Your task to perform on an android device: change timer sound Image 0: 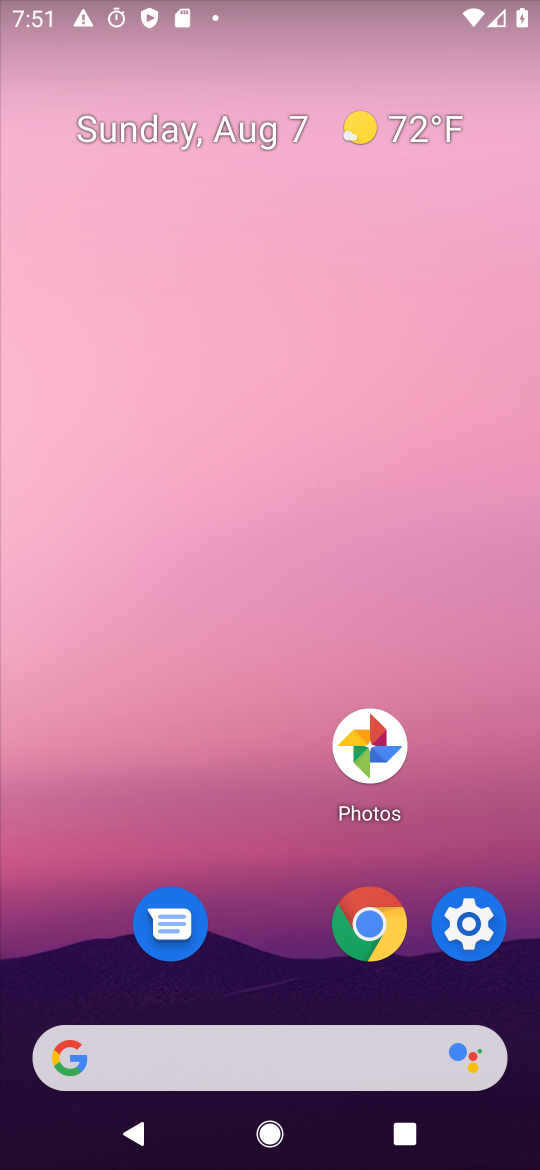
Step 0: drag from (342, 1079) to (269, 487)
Your task to perform on an android device: change timer sound Image 1: 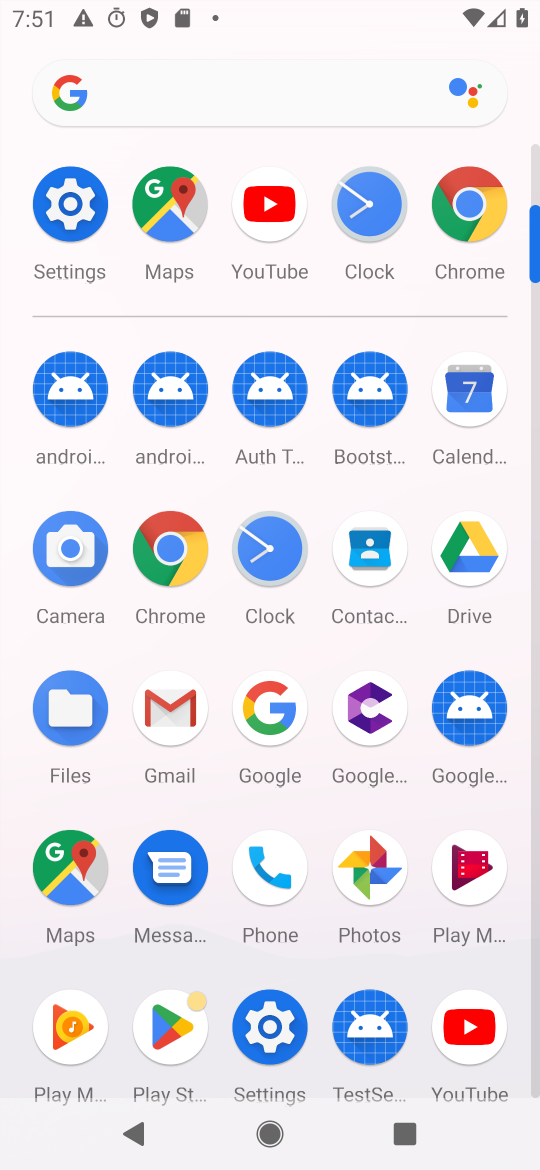
Step 1: click (270, 550)
Your task to perform on an android device: change timer sound Image 2: 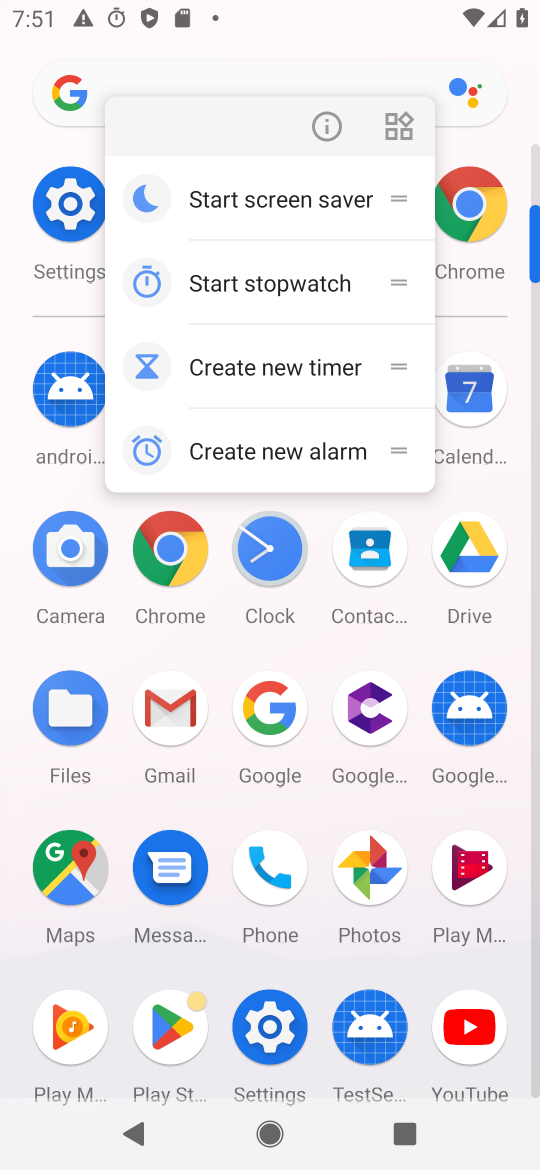
Step 2: click (285, 554)
Your task to perform on an android device: change timer sound Image 3: 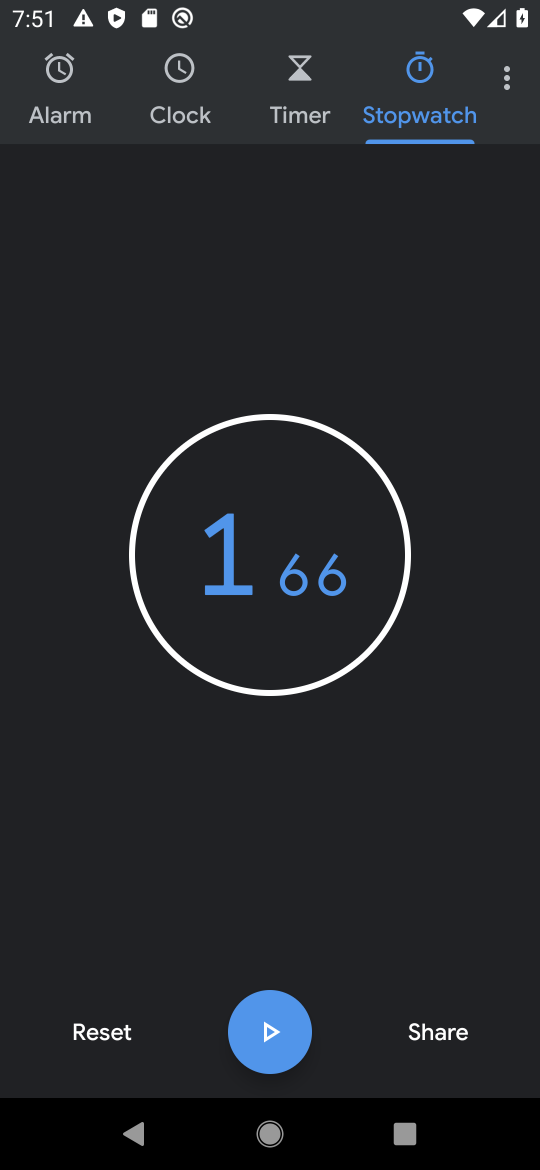
Step 3: click (508, 91)
Your task to perform on an android device: change timer sound Image 4: 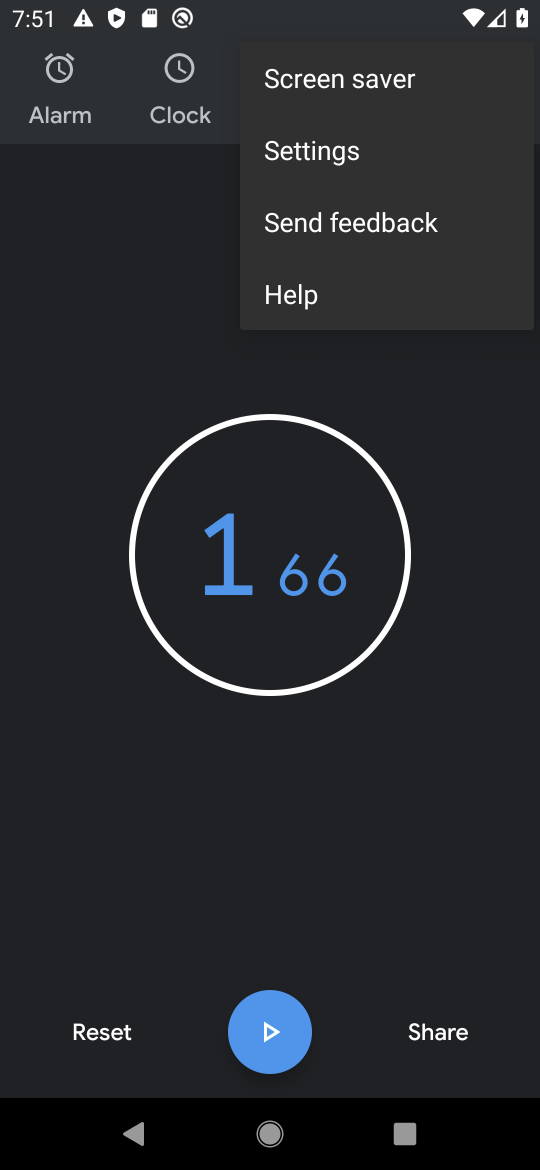
Step 4: click (346, 140)
Your task to perform on an android device: change timer sound Image 5: 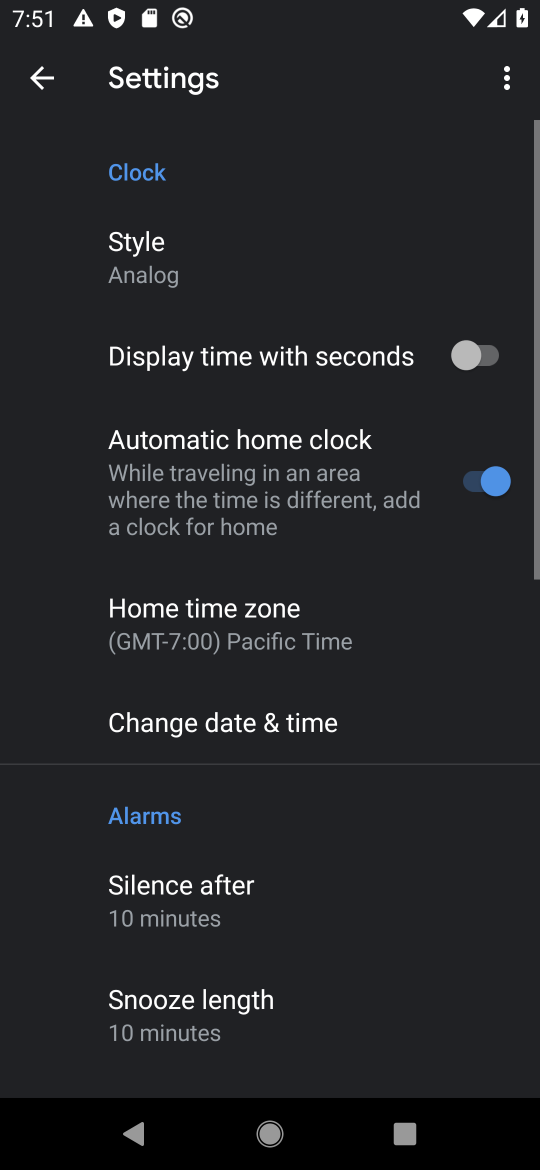
Step 5: drag from (323, 949) to (330, 394)
Your task to perform on an android device: change timer sound Image 6: 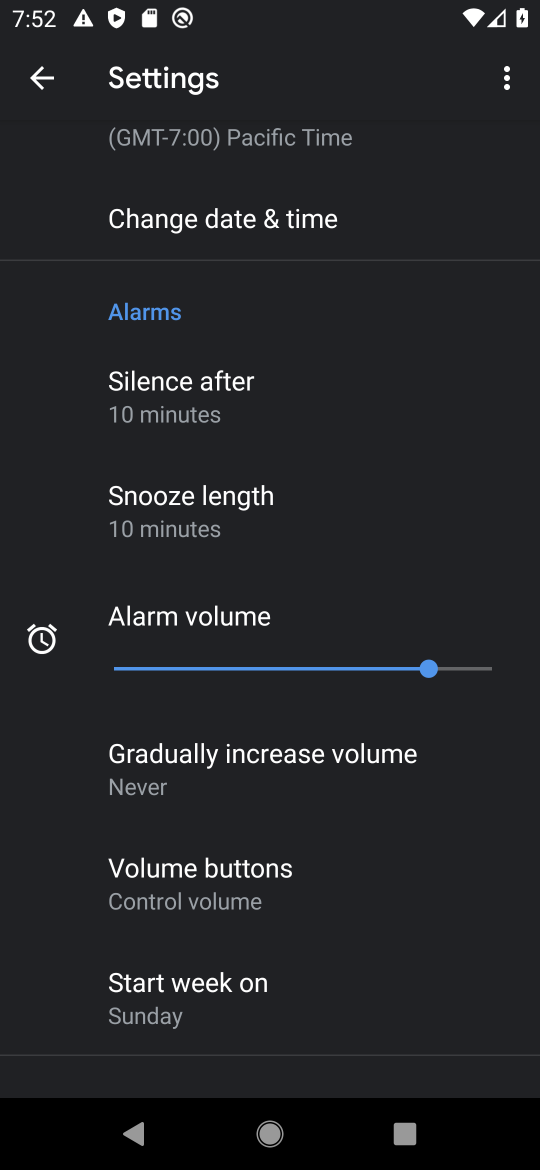
Step 6: drag from (258, 931) to (225, 453)
Your task to perform on an android device: change timer sound Image 7: 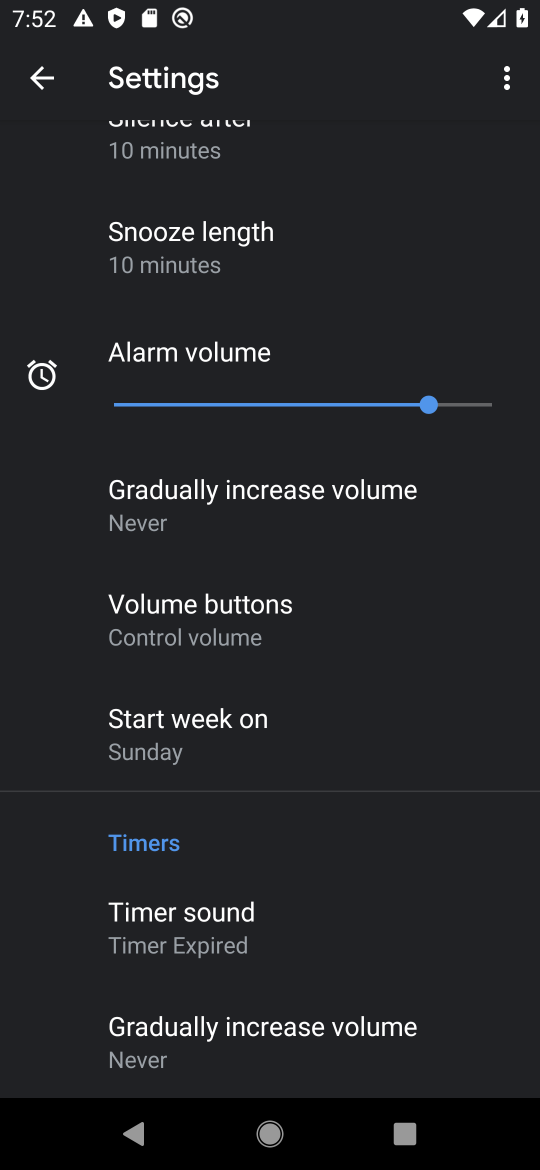
Step 7: click (244, 919)
Your task to perform on an android device: change timer sound Image 8: 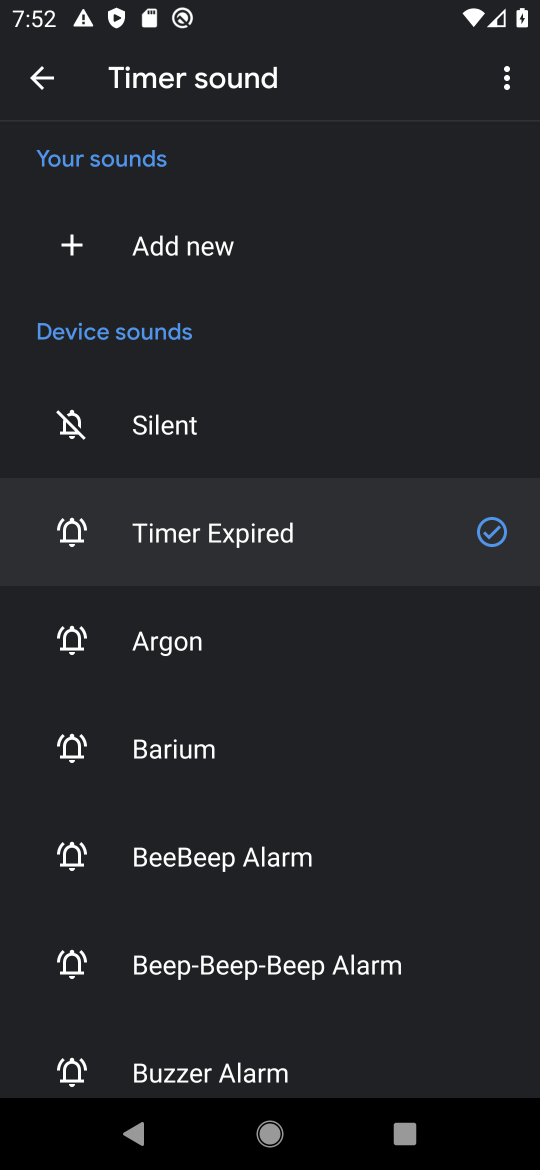
Step 8: click (153, 1046)
Your task to perform on an android device: change timer sound Image 9: 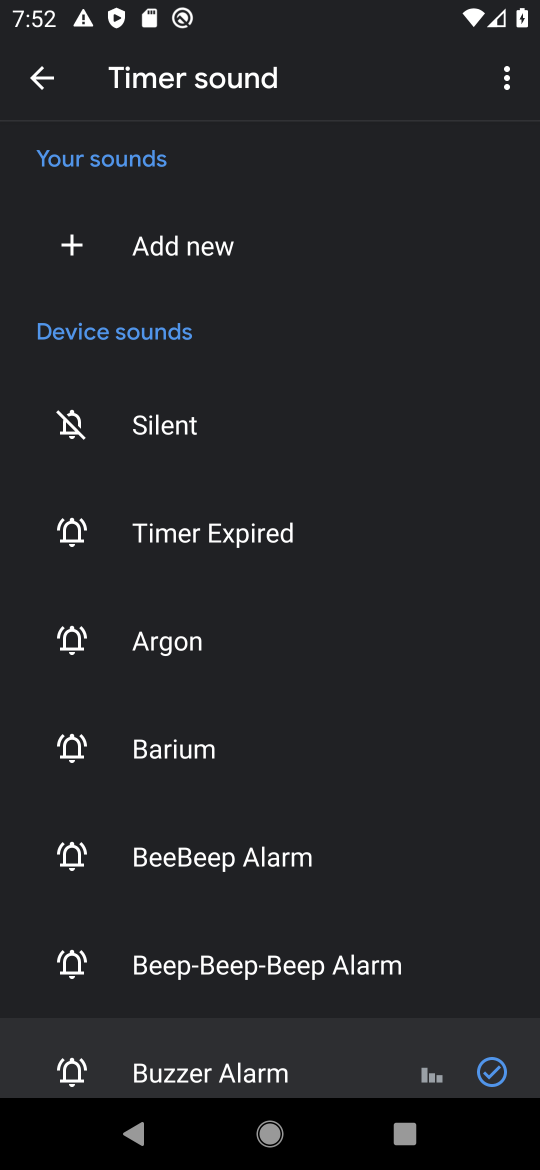
Step 9: task complete